Your task to perform on an android device: Open location settings Image 0: 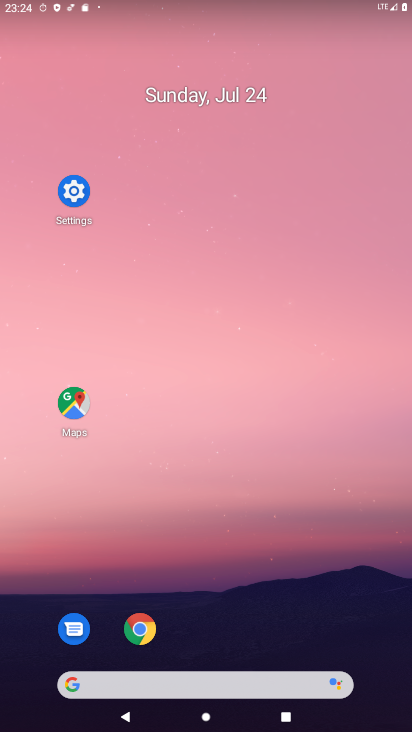
Step 0: drag from (244, 481) to (237, 434)
Your task to perform on an android device: Open location settings Image 1: 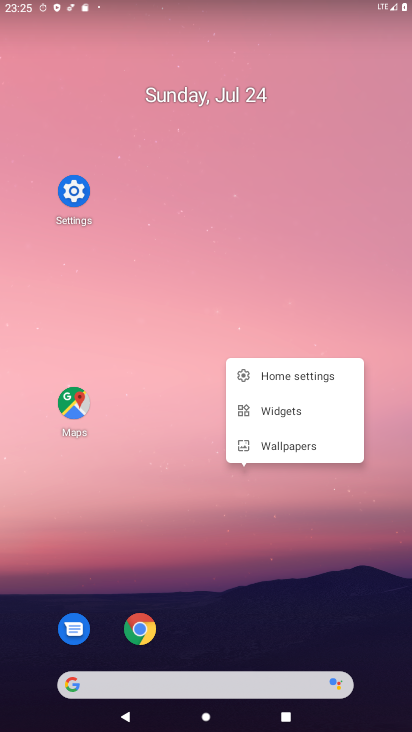
Step 1: drag from (243, 601) to (223, 296)
Your task to perform on an android device: Open location settings Image 2: 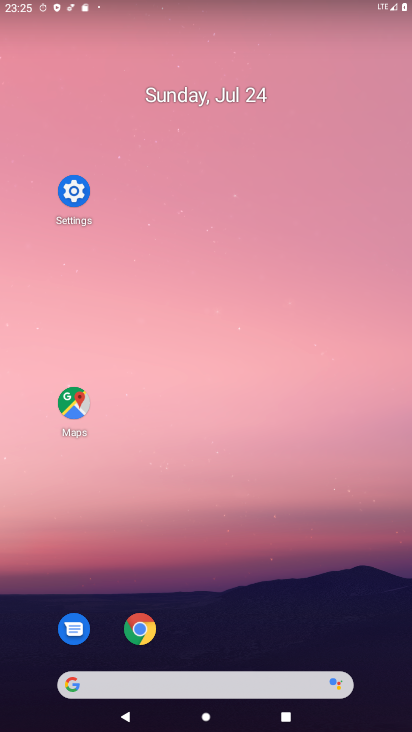
Step 2: drag from (252, 506) to (173, 196)
Your task to perform on an android device: Open location settings Image 3: 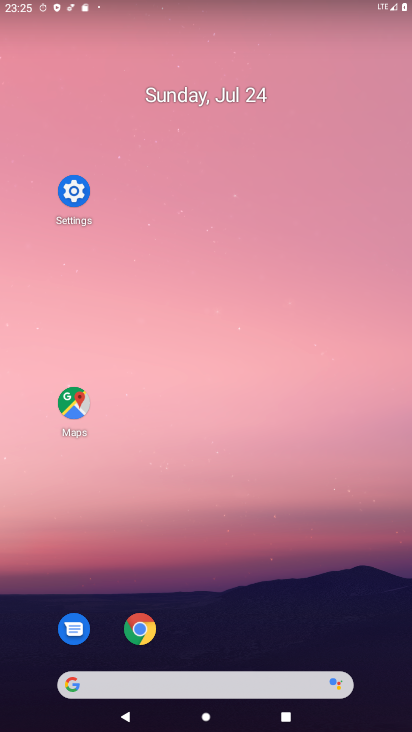
Step 3: drag from (255, 486) to (195, 240)
Your task to perform on an android device: Open location settings Image 4: 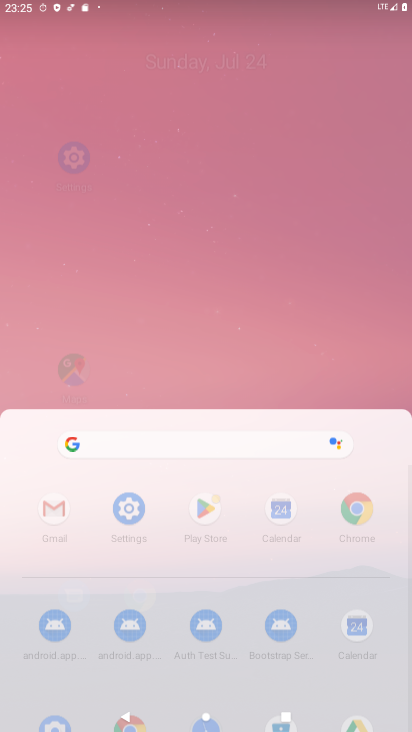
Step 4: drag from (236, 472) to (206, 228)
Your task to perform on an android device: Open location settings Image 5: 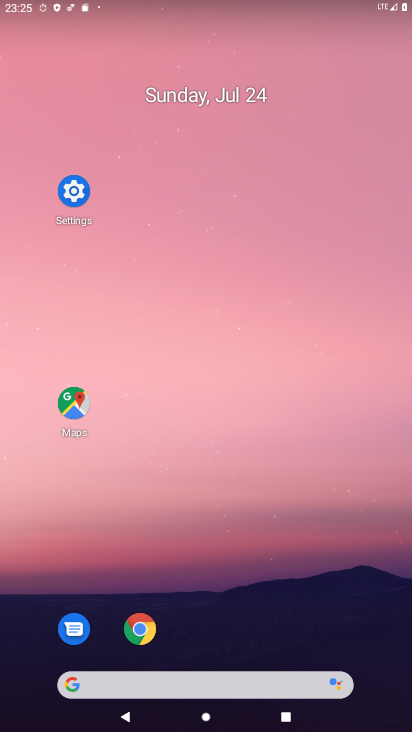
Step 5: drag from (233, 501) to (252, 115)
Your task to perform on an android device: Open location settings Image 6: 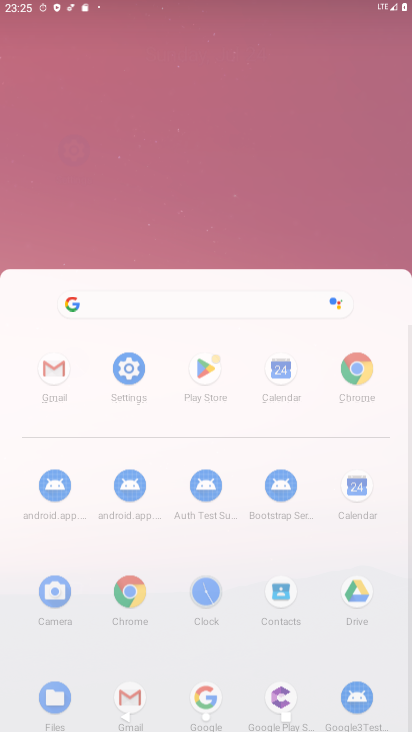
Step 6: drag from (212, 496) to (223, 167)
Your task to perform on an android device: Open location settings Image 7: 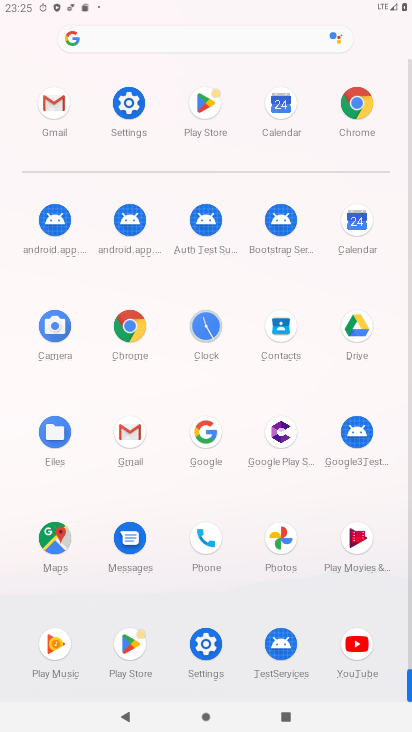
Step 7: click (123, 104)
Your task to perform on an android device: Open location settings Image 8: 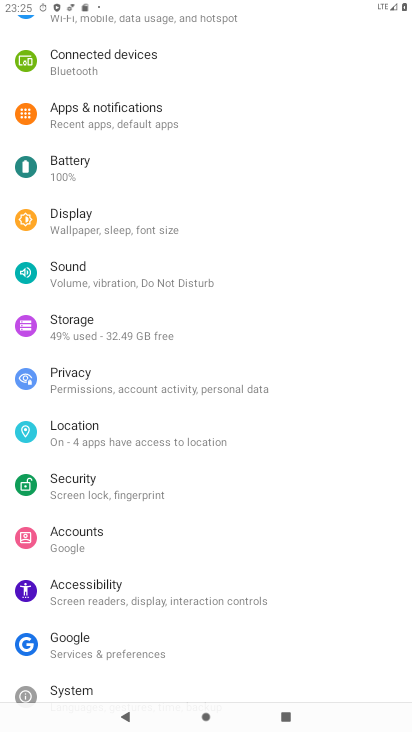
Step 8: click (81, 428)
Your task to perform on an android device: Open location settings Image 9: 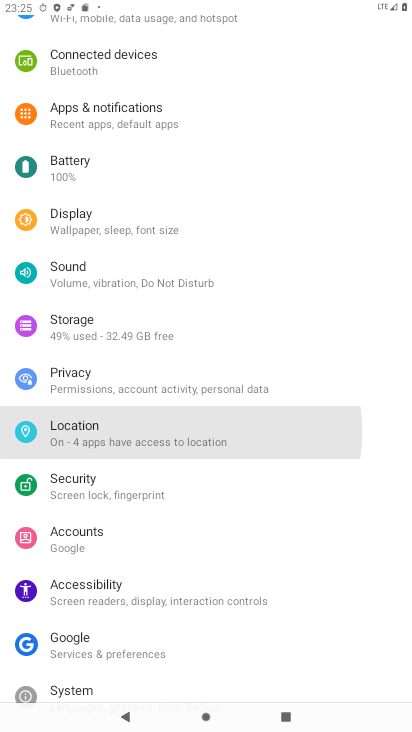
Step 9: click (81, 428)
Your task to perform on an android device: Open location settings Image 10: 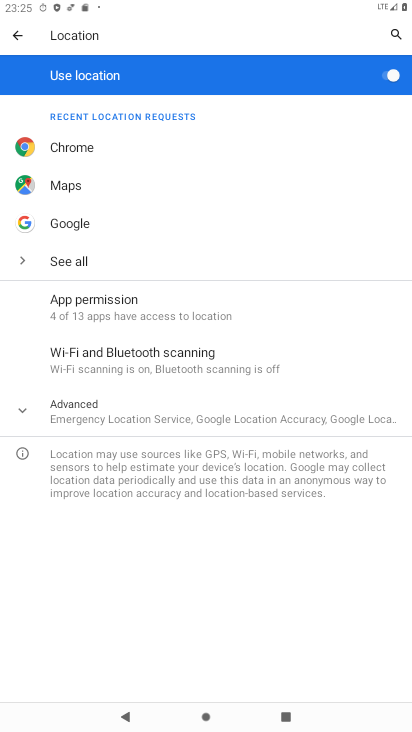
Step 10: task complete